Your task to perform on an android device: turn off wifi Image 0: 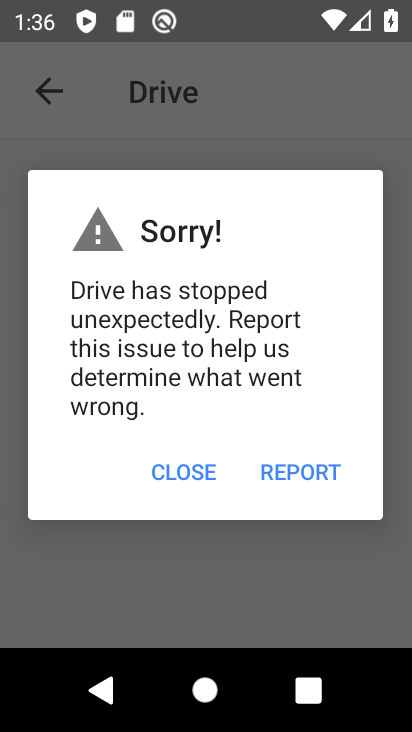
Step 0: press home button
Your task to perform on an android device: turn off wifi Image 1: 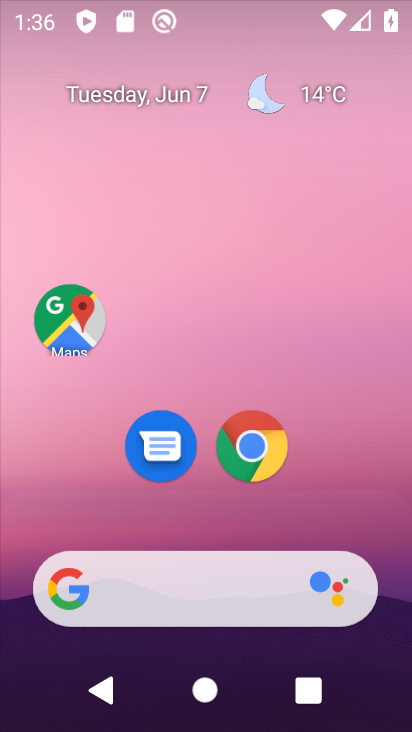
Step 1: drag from (196, 599) to (169, 120)
Your task to perform on an android device: turn off wifi Image 2: 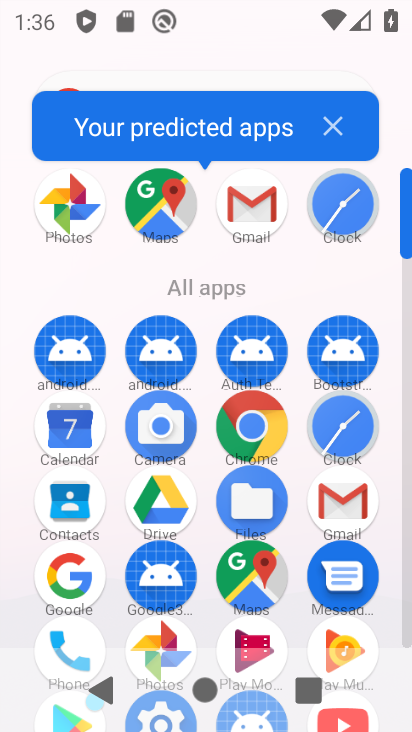
Step 2: drag from (216, 541) to (226, 122)
Your task to perform on an android device: turn off wifi Image 3: 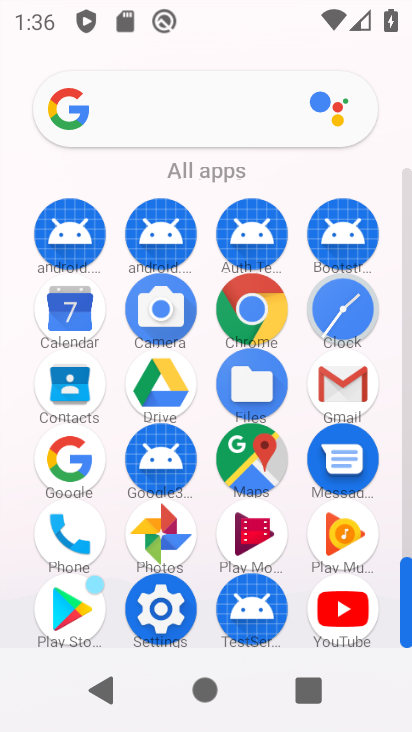
Step 3: click (175, 620)
Your task to perform on an android device: turn off wifi Image 4: 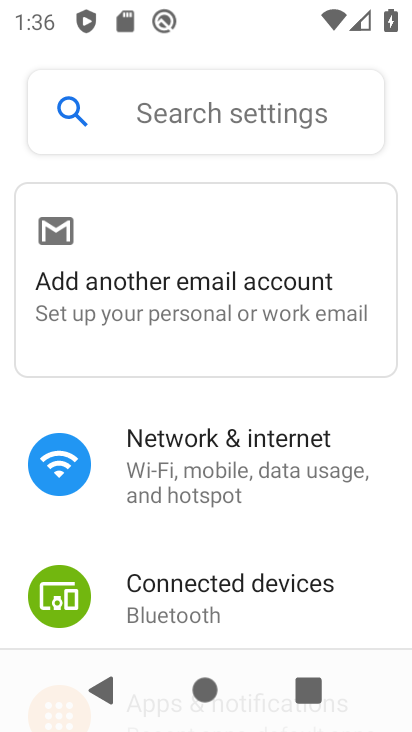
Step 4: click (222, 442)
Your task to perform on an android device: turn off wifi Image 5: 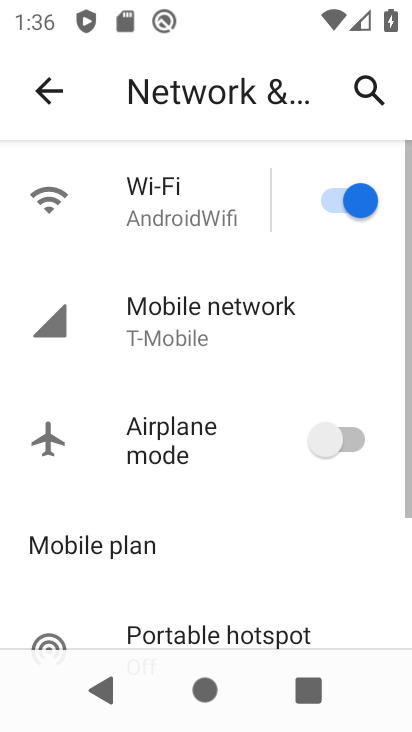
Step 5: click (332, 197)
Your task to perform on an android device: turn off wifi Image 6: 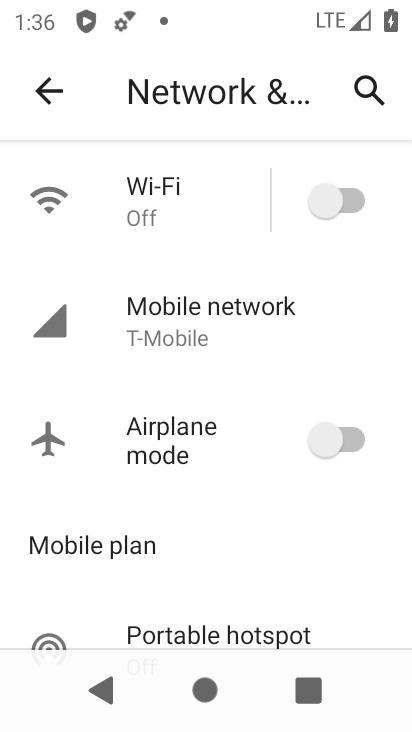
Step 6: task complete